Your task to perform on an android device: check data usage Image 0: 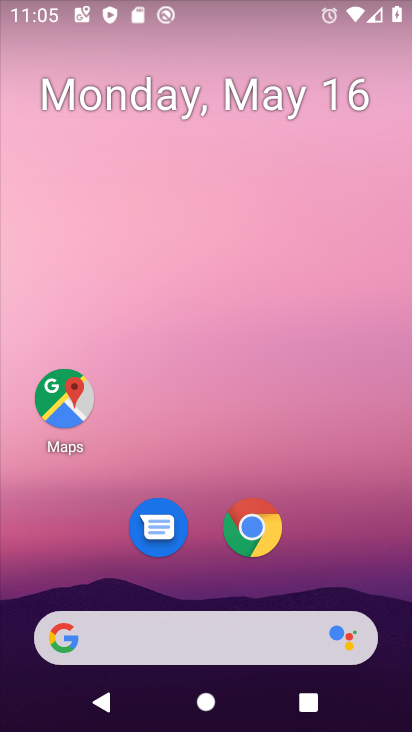
Step 0: drag from (350, 572) to (338, 23)
Your task to perform on an android device: check data usage Image 1: 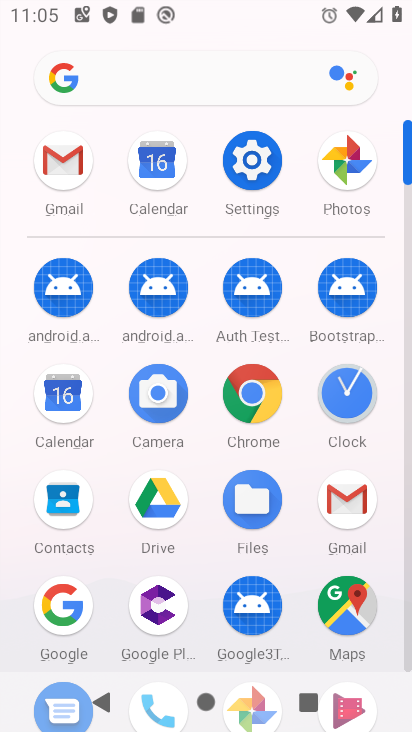
Step 1: click (255, 166)
Your task to perform on an android device: check data usage Image 2: 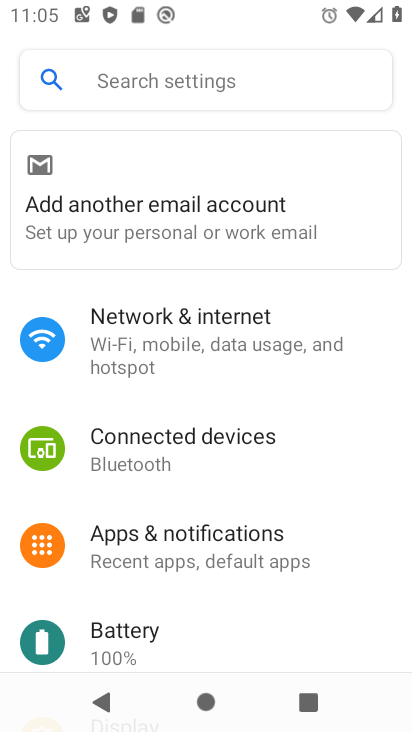
Step 2: click (197, 342)
Your task to perform on an android device: check data usage Image 3: 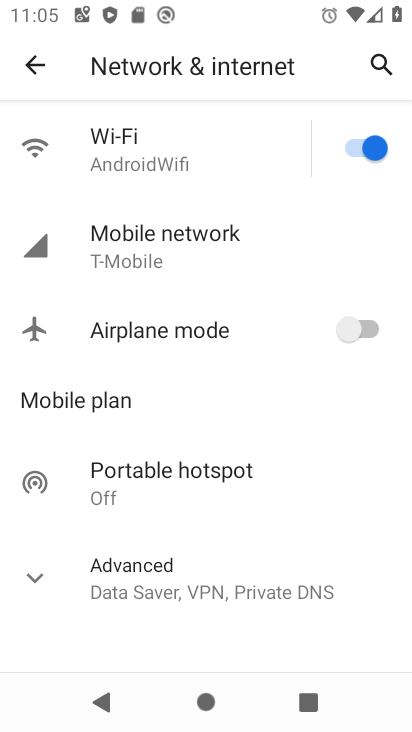
Step 3: click (137, 250)
Your task to perform on an android device: check data usage Image 4: 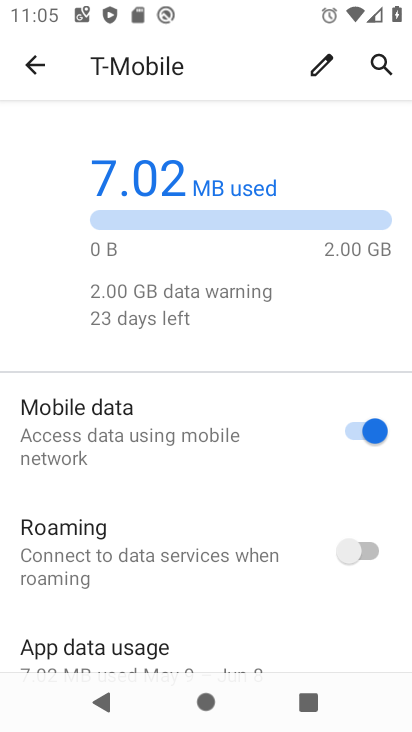
Step 4: drag from (122, 635) to (132, 255)
Your task to perform on an android device: check data usage Image 5: 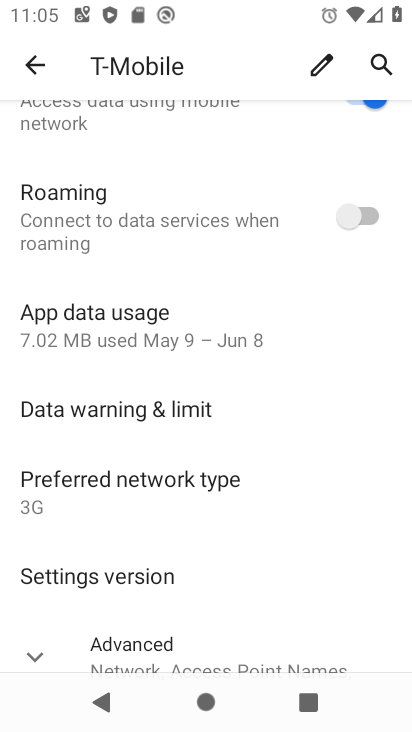
Step 5: click (82, 315)
Your task to perform on an android device: check data usage Image 6: 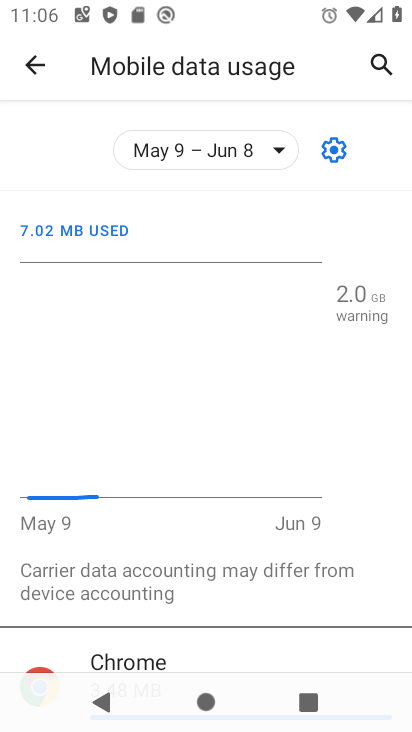
Step 6: task complete